Your task to perform on an android device: Open Android settings Image 0: 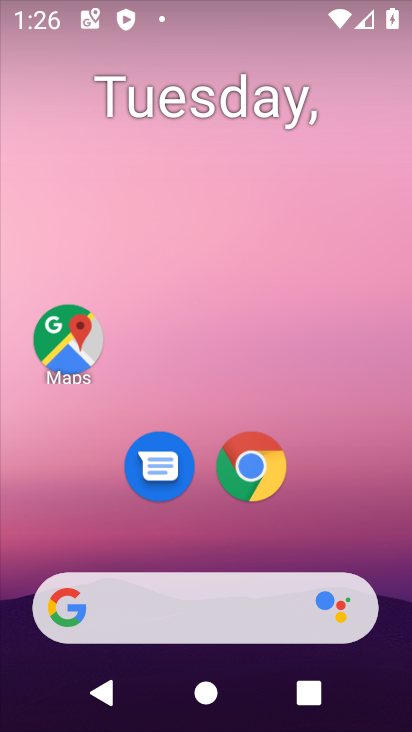
Step 0: click (369, 469)
Your task to perform on an android device: Open Android settings Image 1: 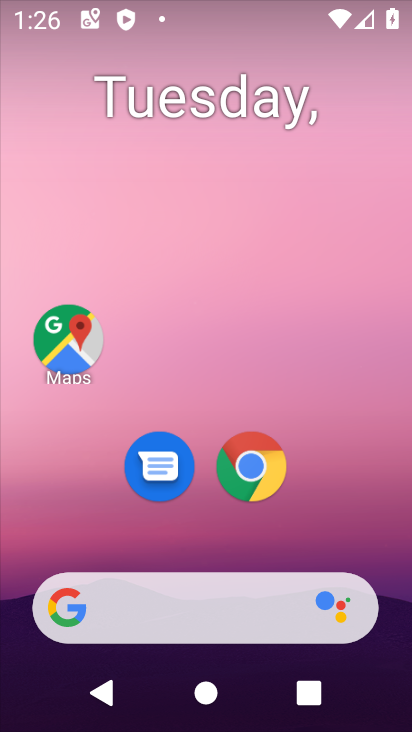
Step 1: drag from (406, 508) to (281, 0)
Your task to perform on an android device: Open Android settings Image 2: 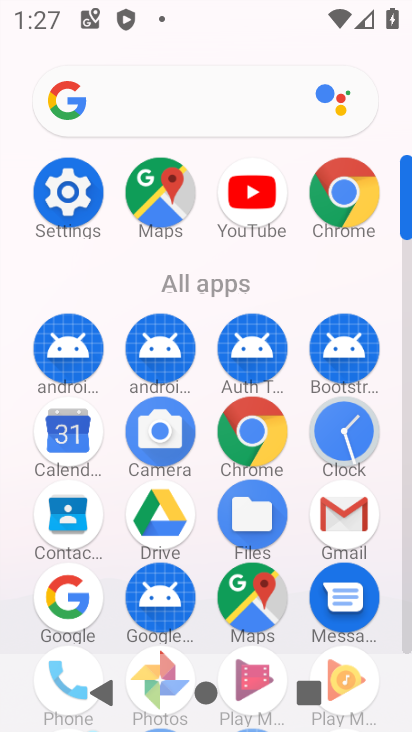
Step 2: click (57, 185)
Your task to perform on an android device: Open Android settings Image 3: 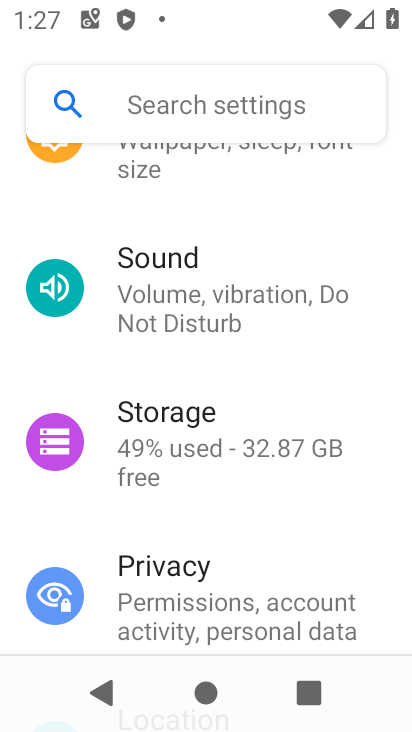
Step 3: drag from (191, 520) to (284, 41)
Your task to perform on an android device: Open Android settings Image 4: 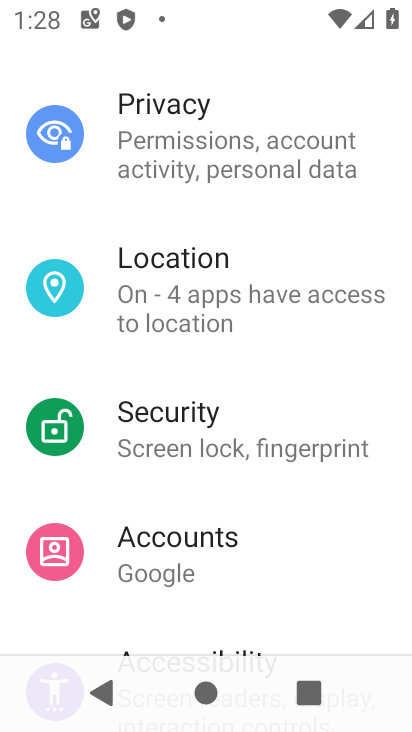
Step 4: drag from (145, 580) to (239, 82)
Your task to perform on an android device: Open Android settings Image 5: 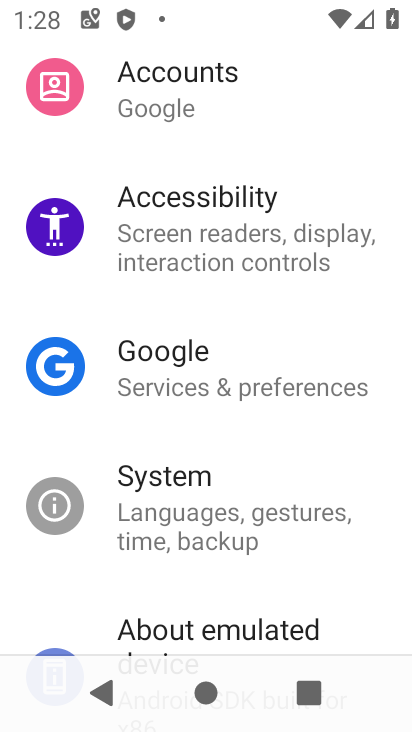
Step 5: drag from (129, 406) to (151, 186)
Your task to perform on an android device: Open Android settings Image 6: 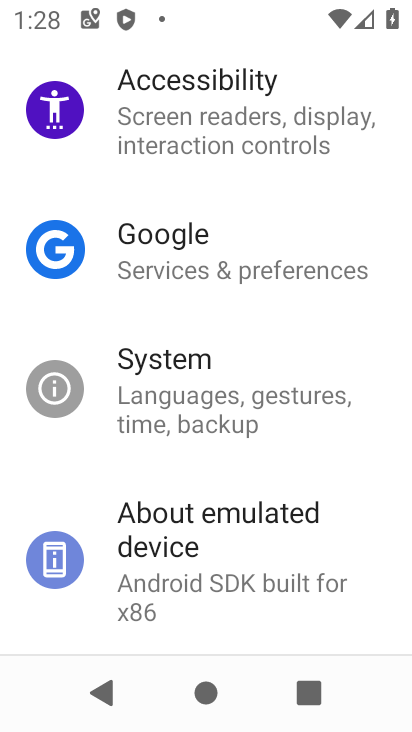
Step 6: click (65, 614)
Your task to perform on an android device: Open Android settings Image 7: 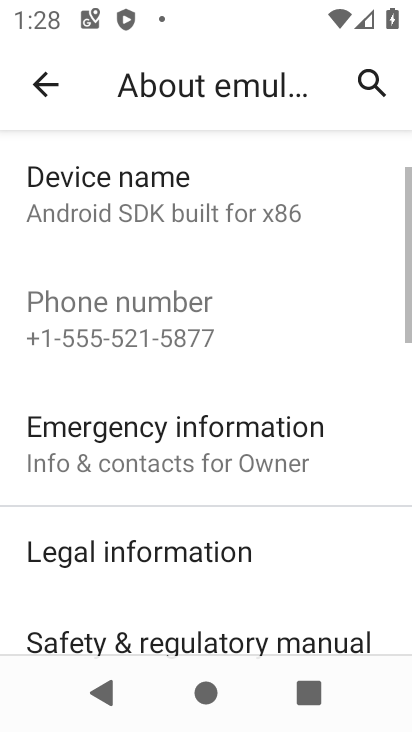
Step 7: drag from (25, 590) to (52, 56)
Your task to perform on an android device: Open Android settings Image 8: 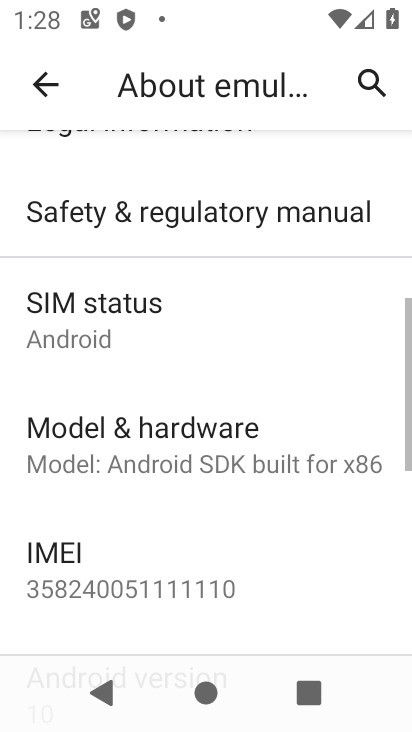
Step 8: drag from (105, 448) to (139, 50)
Your task to perform on an android device: Open Android settings Image 9: 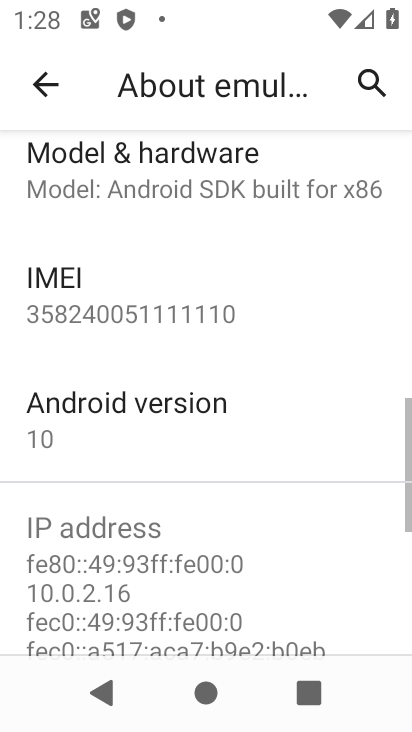
Step 9: click (125, 414)
Your task to perform on an android device: Open Android settings Image 10: 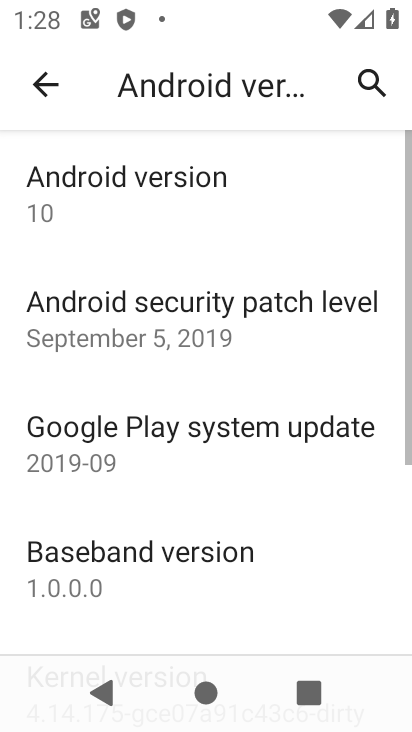
Step 10: task complete